Your task to perform on an android device: manage bookmarks in the chrome app Image 0: 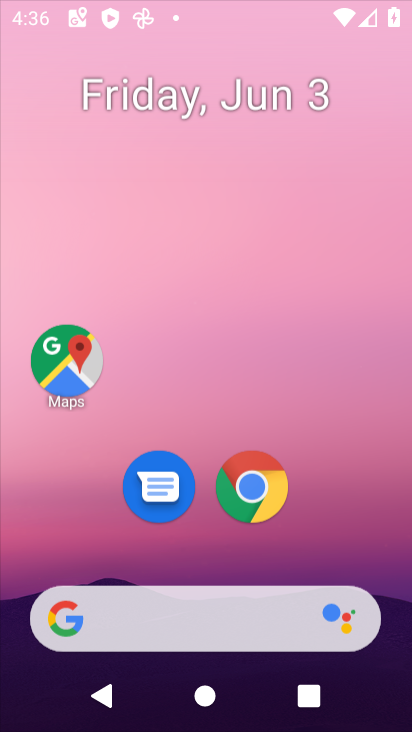
Step 0: click (275, 69)
Your task to perform on an android device: manage bookmarks in the chrome app Image 1: 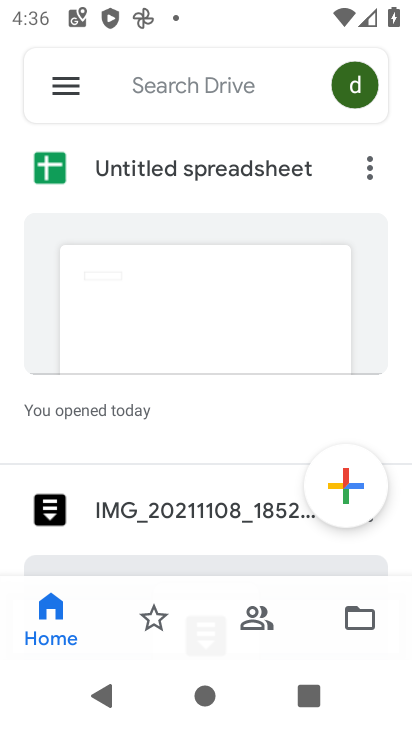
Step 1: drag from (292, 528) to (317, 159)
Your task to perform on an android device: manage bookmarks in the chrome app Image 2: 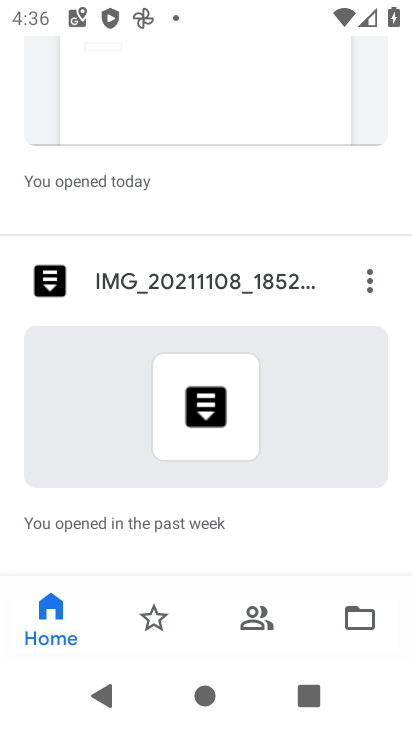
Step 2: drag from (215, 501) to (289, 244)
Your task to perform on an android device: manage bookmarks in the chrome app Image 3: 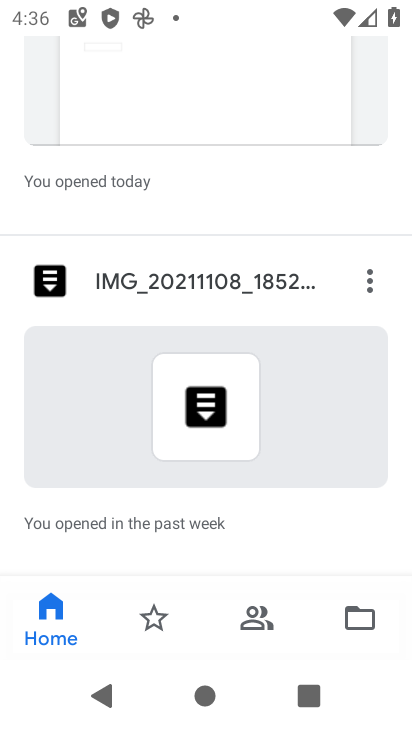
Step 3: drag from (317, 132) to (376, 696)
Your task to perform on an android device: manage bookmarks in the chrome app Image 4: 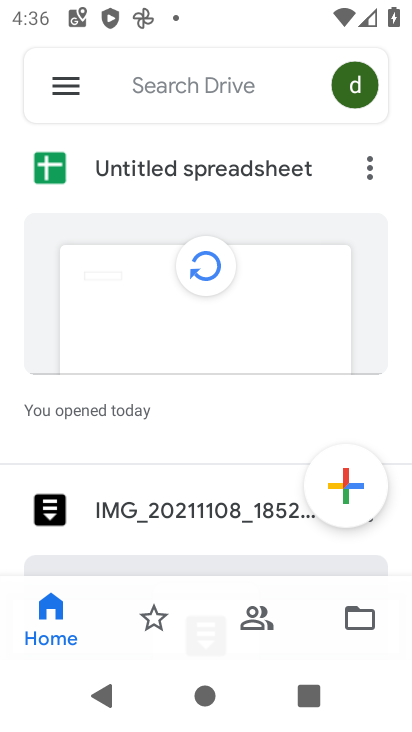
Step 4: press home button
Your task to perform on an android device: manage bookmarks in the chrome app Image 5: 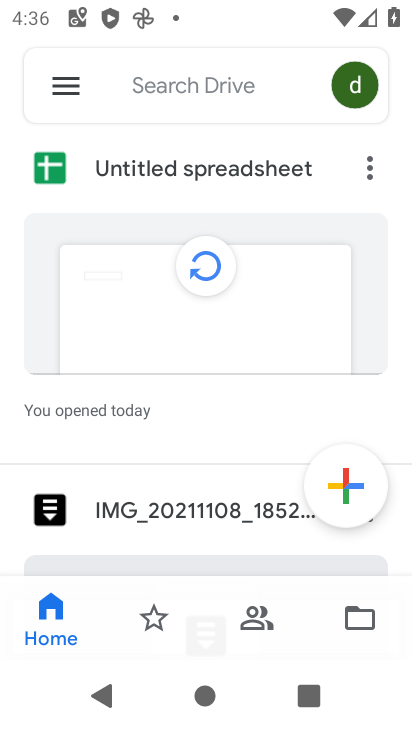
Step 5: drag from (376, 696) to (398, 329)
Your task to perform on an android device: manage bookmarks in the chrome app Image 6: 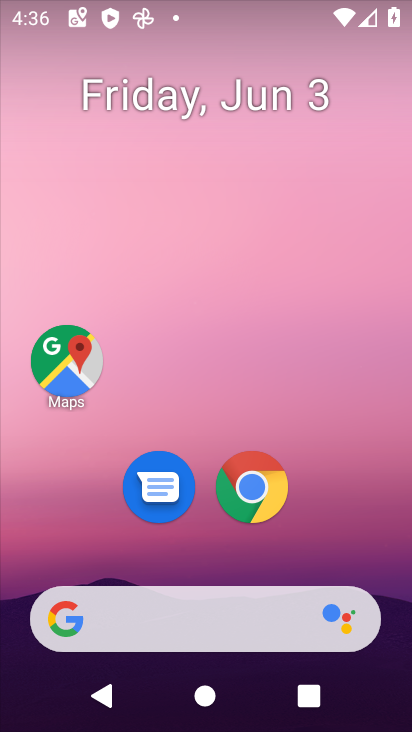
Step 6: click (253, 516)
Your task to perform on an android device: manage bookmarks in the chrome app Image 7: 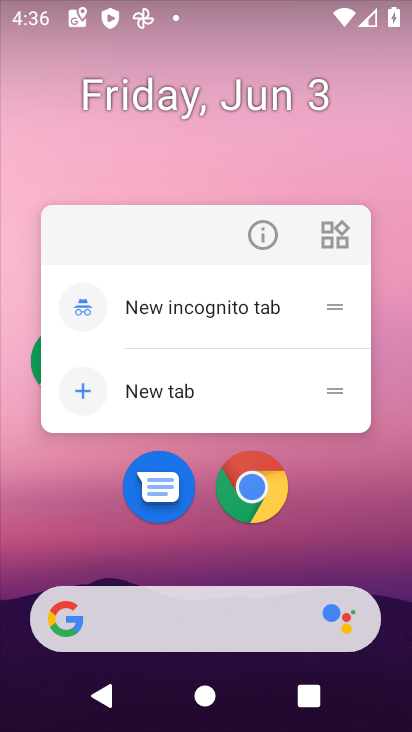
Step 7: click (254, 237)
Your task to perform on an android device: manage bookmarks in the chrome app Image 8: 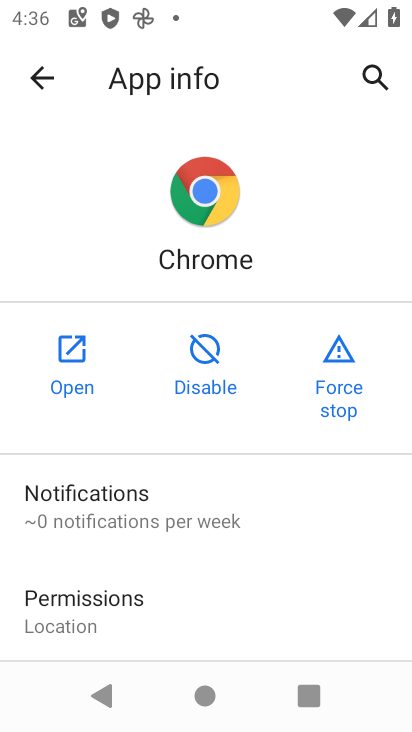
Step 8: click (82, 376)
Your task to perform on an android device: manage bookmarks in the chrome app Image 9: 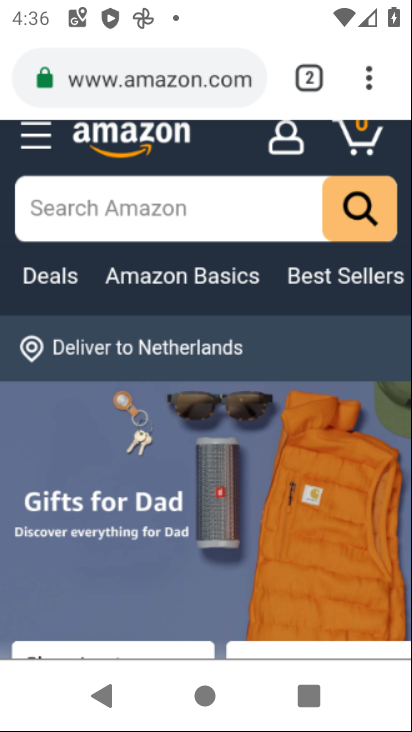
Step 9: drag from (152, 639) to (312, 104)
Your task to perform on an android device: manage bookmarks in the chrome app Image 10: 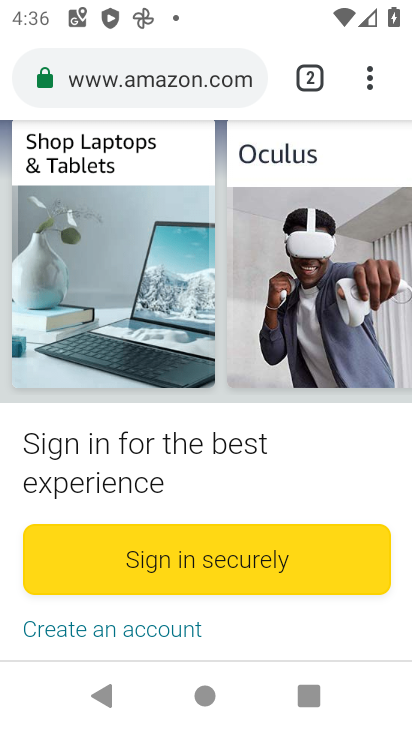
Step 10: drag from (334, 181) to (386, 492)
Your task to perform on an android device: manage bookmarks in the chrome app Image 11: 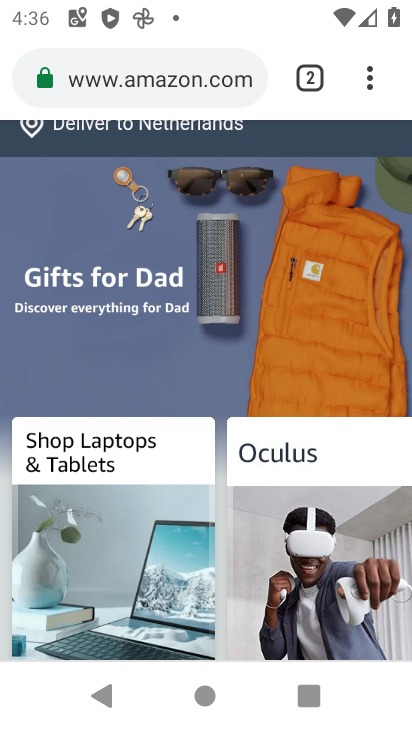
Step 11: click (378, 66)
Your task to perform on an android device: manage bookmarks in the chrome app Image 12: 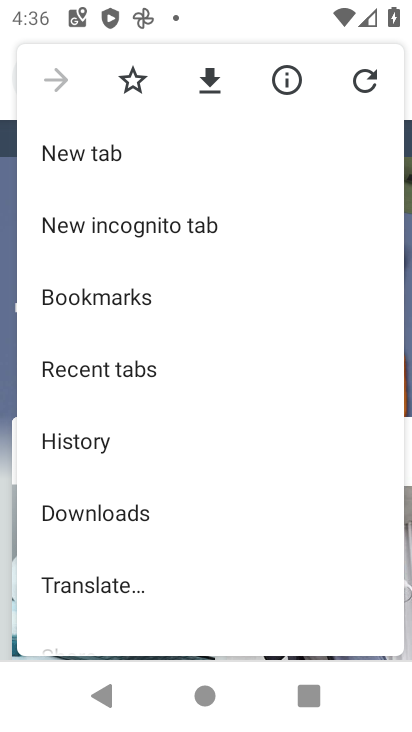
Step 12: click (134, 304)
Your task to perform on an android device: manage bookmarks in the chrome app Image 13: 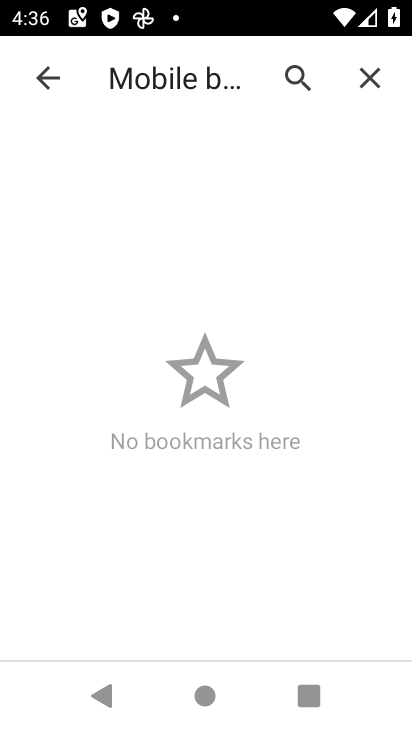
Step 13: task complete